Your task to perform on an android device: delete location history Image 0: 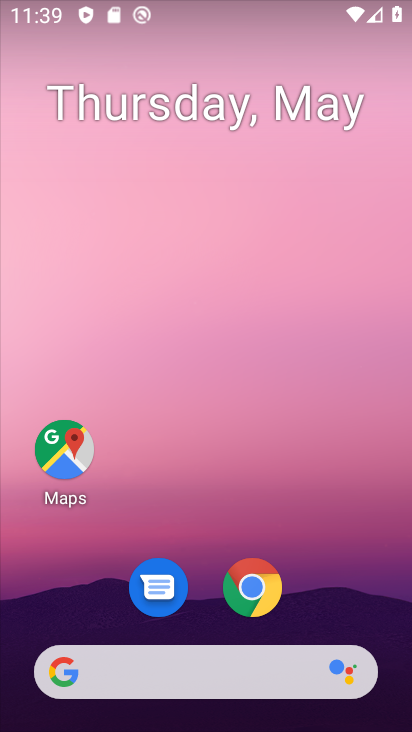
Step 0: click (51, 447)
Your task to perform on an android device: delete location history Image 1: 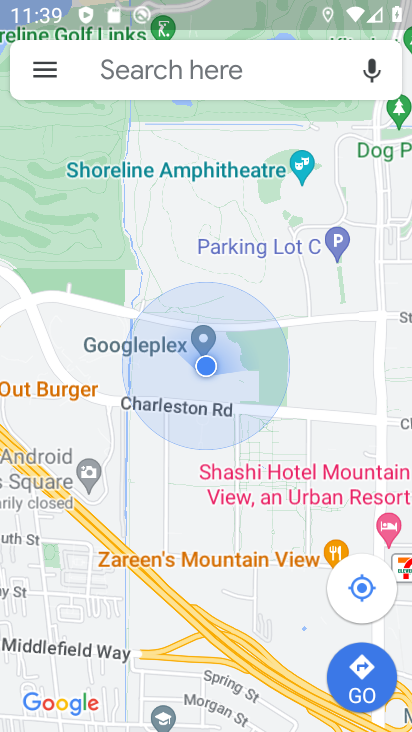
Step 1: click (44, 71)
Your task to perform on an android device: delete location history Image 2: 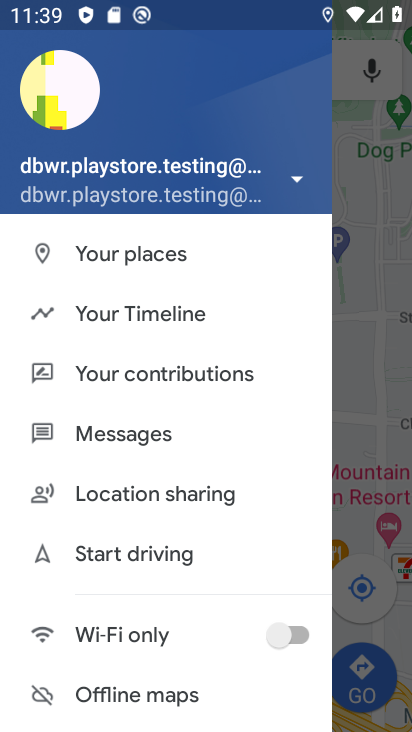
Step 2: click (153, 320)
Your task to perform on an android device: delete location history Image 3: 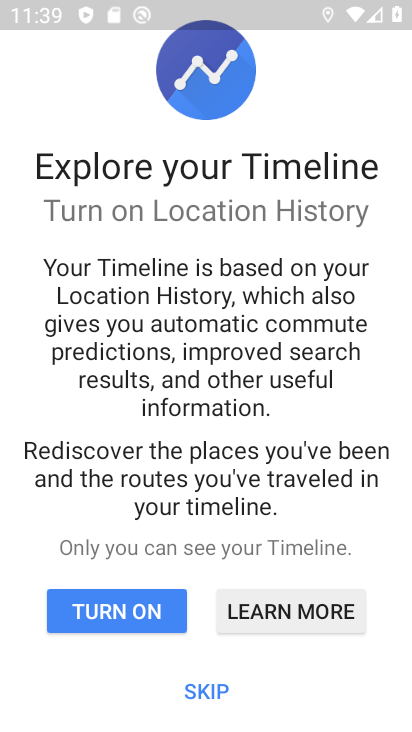
Step 3: click (210, 694)
Your task to perform on an android device: delete location history Image 4: 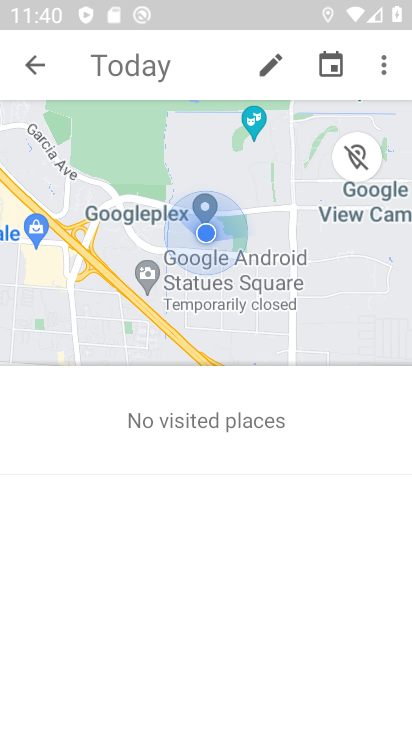
Step 4: click (388, 53)
Your task to perform on an android device: delete location history Image 5: 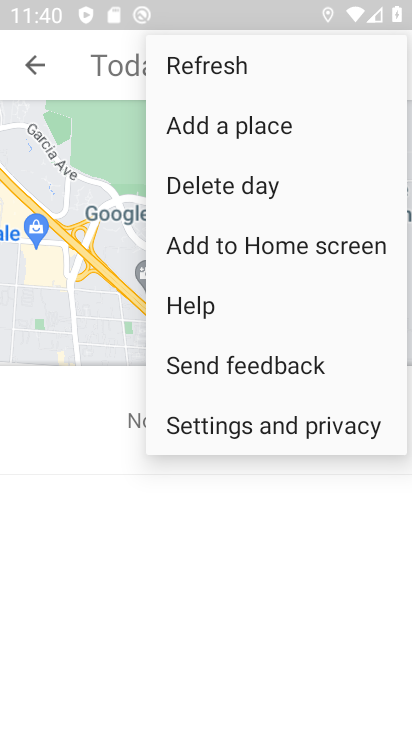
Step 5: click (223, 433)
Your task to perform on an android device: delete location history Image 6: 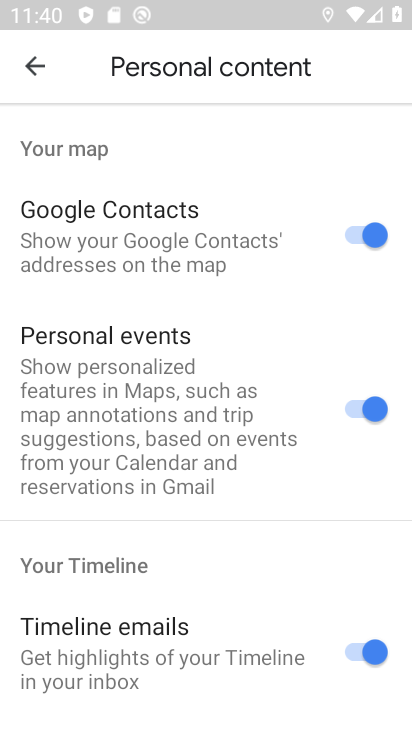
Step 6: drag from (150, 668) to (282, 137)
Your task to perform on an android device: delete location history Image 7: 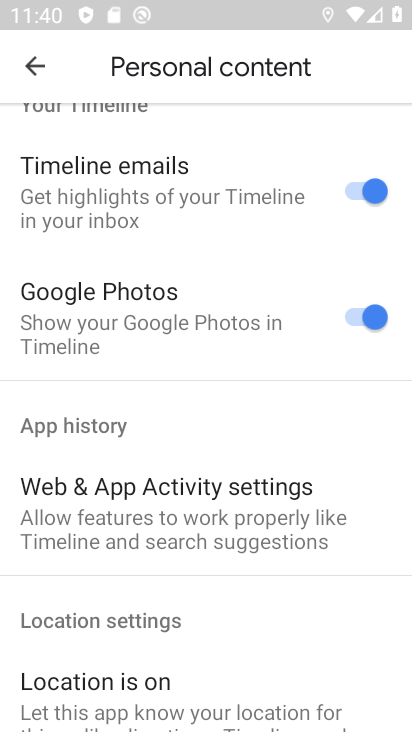
Step 7: drag from (218, 715) to (321, 85)
Your task to perform on an android device: delete location history Image 8: 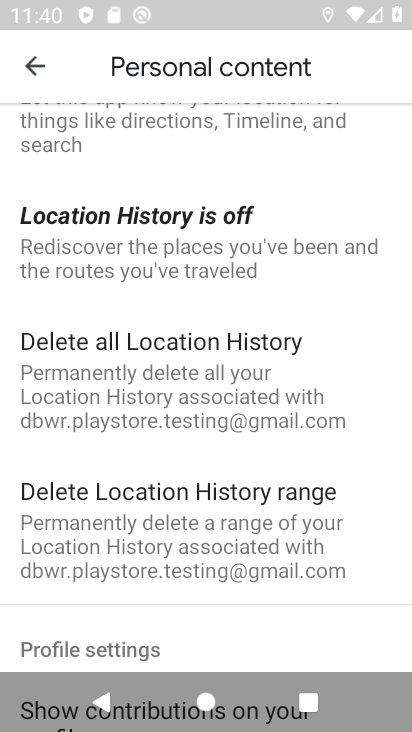
Step 8: click (172, 387)
Your task to perform on an android device: delete location history Image 9: 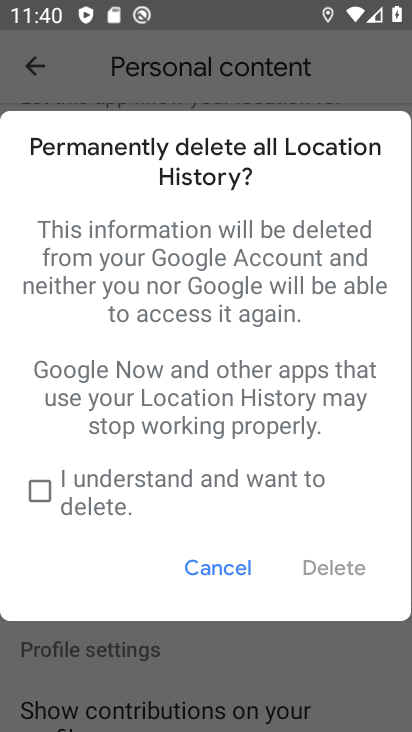
Step 9: click (27, 504)
Your task to perform on an android device: delete location history Image 10: 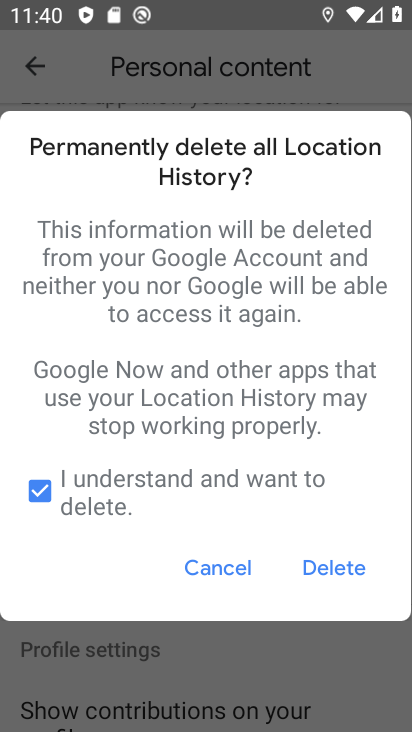
Step 10: click (338, 565)
Your task to perform on an android device: delete location history Image 11: 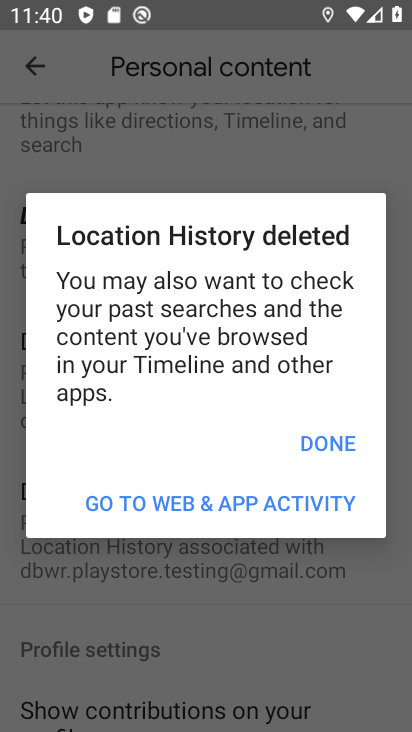
Step 11: click (330, 446)
Your task to perform on an android device: delete location history Image 12: 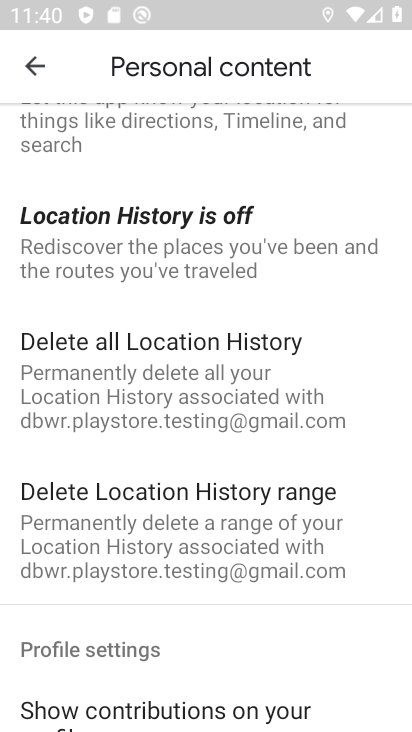
Step 12: task complete